Your task to perform on an android device: Open Youtube and go to the subscriptions tab Image 0: 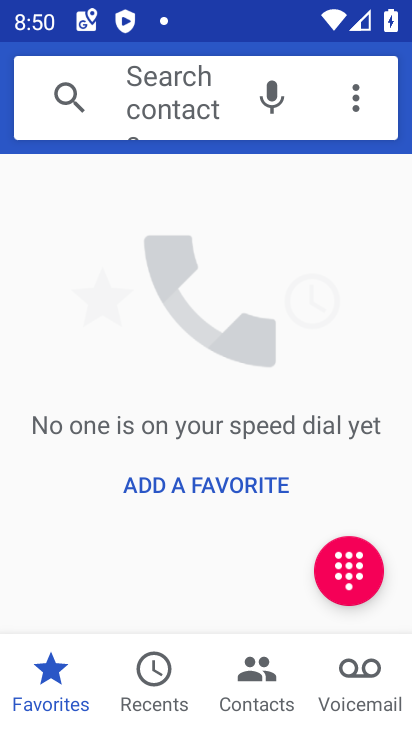
Step 0: press home button
Your task to perform on an android device: Open Youtube and go to the subscriptions tab Image 1: 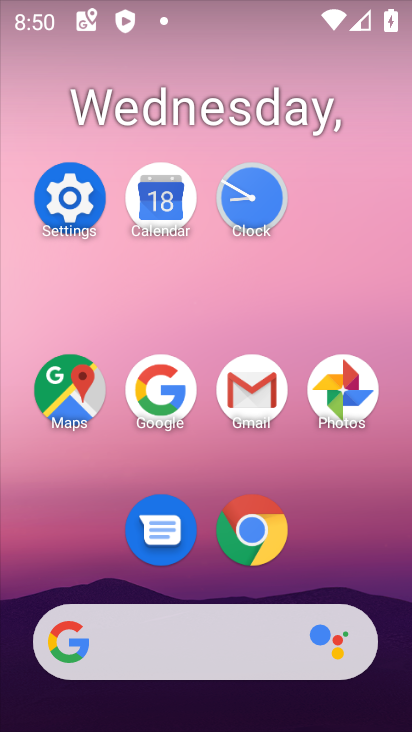
Step 1: drag from (230, 588) to (291, 206)
Your task to perform on an android device: Open Youtube and go to the subscriptions tab Image 2: 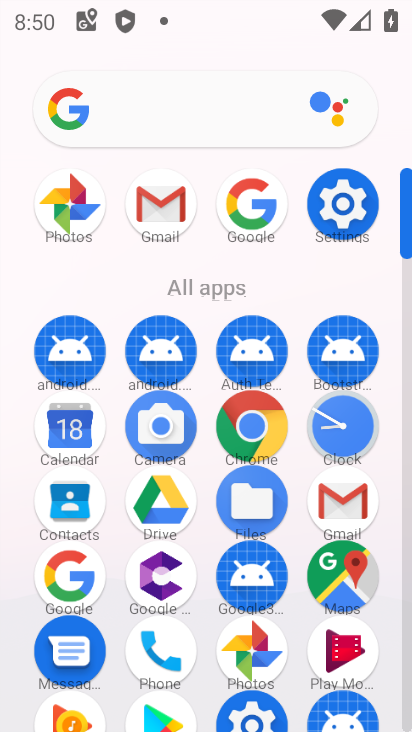
Step 2: drag from (202, 618) to (238, 285)
Your task to perform on an android device: Open Youtube and go to the subscriptions tab Image 3: 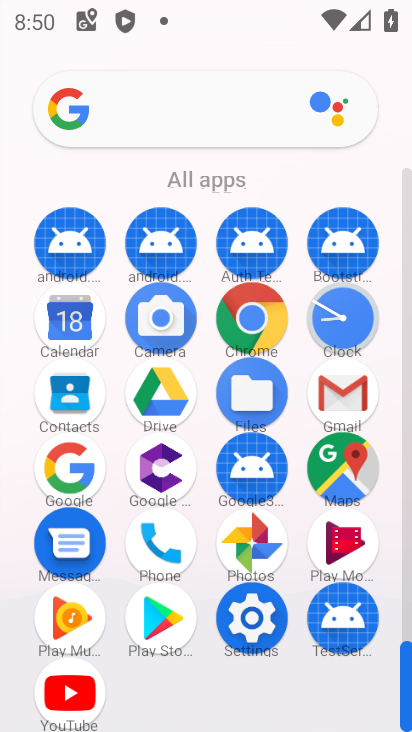
Step 3: click (60, 698)
Your task to perform on an android device: Open Youtube and go to the subscriptions tab Image 4: 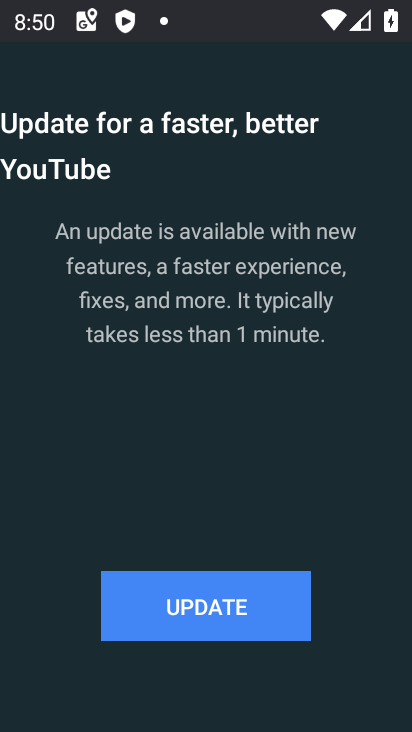
Step 4: drag from (286, 646) to (185, 646)
Your task to perform on an android device: Open Youtube and go to the subscriptions tab Image 5: 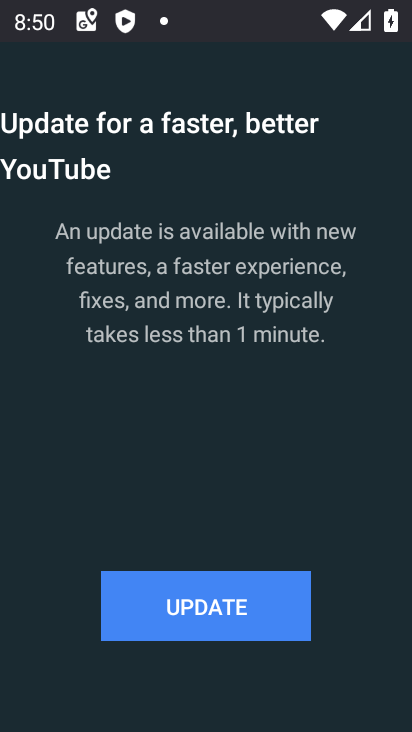
Step 5: click (197, 632)
Your task to perform on an android device: Open Youtube and go to the subscriptions tab Image 6: 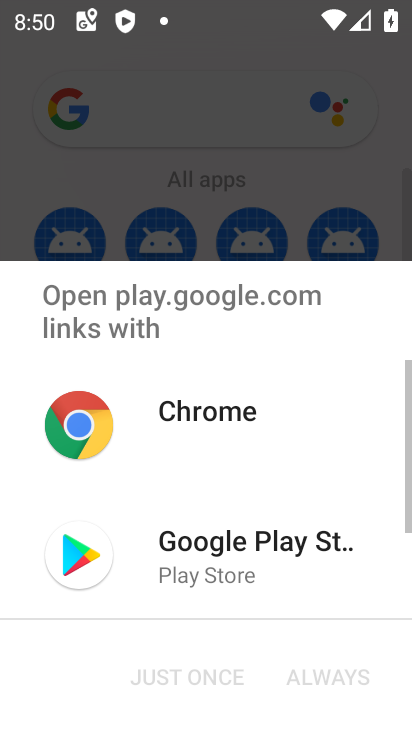
Step 6: click (296, 541)
Your task to perform on an android device: Open Youtube and go to the subscriptions tab Image 7: 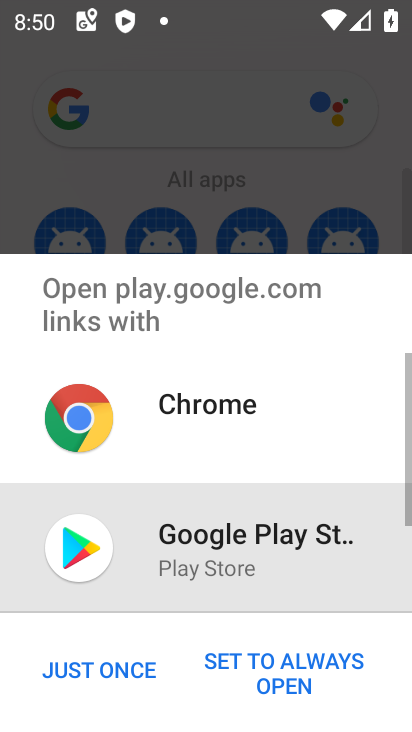
Step 7: click (300, 535)
Your task to perform on an android device: Open Youtube and go to the subscriptions tab Image 8: 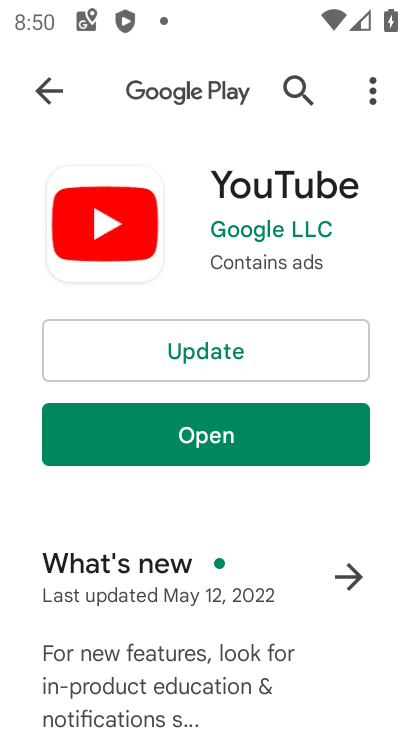
Step 8: click (277, 364)
Your task to perform on an android device: Open Youtube and go to the subscriptions tab Image 9: 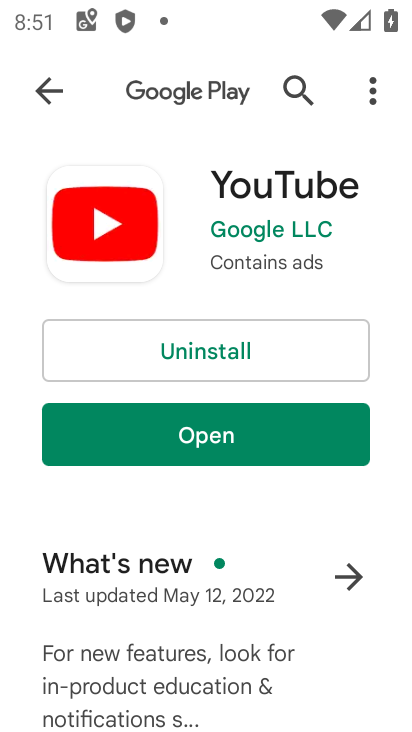
Step 9: click (321, 439)
Your task to perform on an android device: Open Youtube and go to the subscriptions tab Image 10: 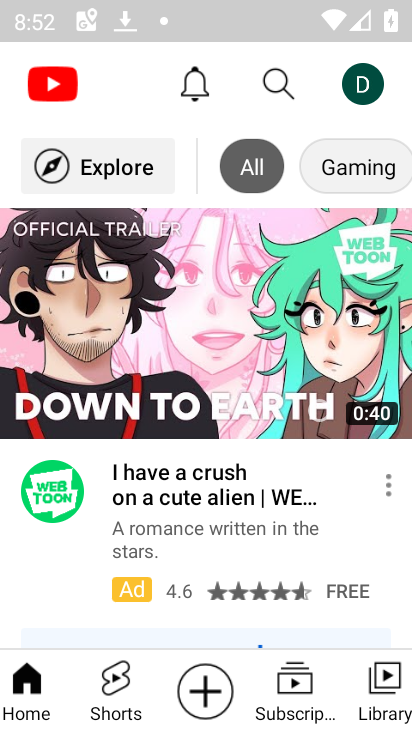
Step 10: click (288, 689)
Your task to perform on an android device: Open Youtube and go to the subscriptions tab Image 11: 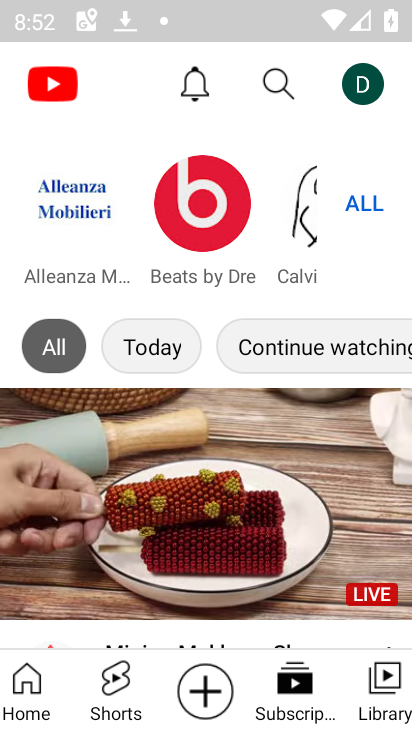
Step 11: task complete